Your task to perform on an android device: turn on translation in the chrome app Image 0: 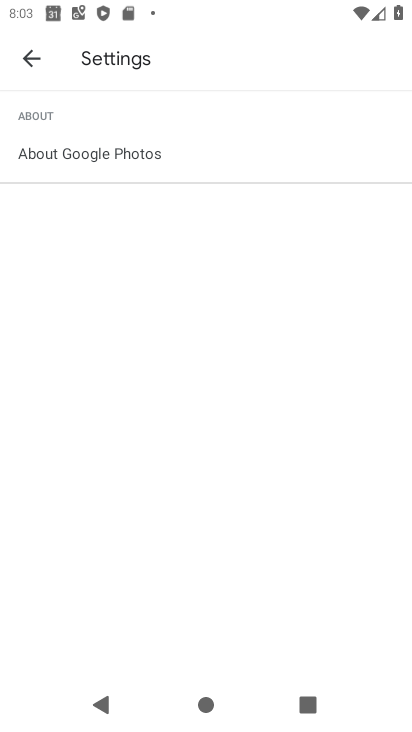
Step 0: press home button
Your task to perform on an android device: turn on translation in the chrome app Image 1: 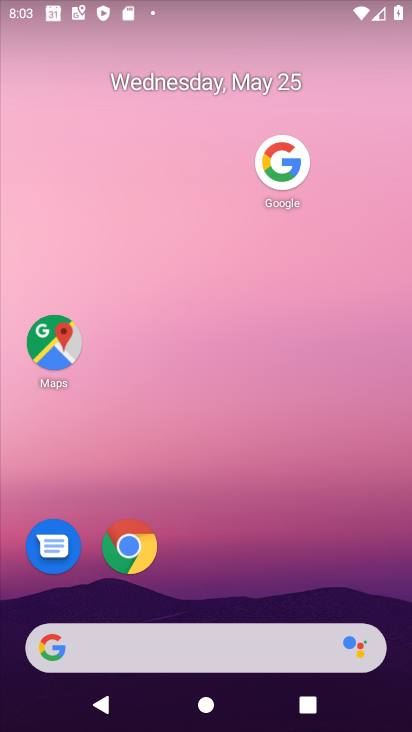
Step 1: click (131, 550)
Your task to perform on an android device: turn on translation in the chrome app Image 2: 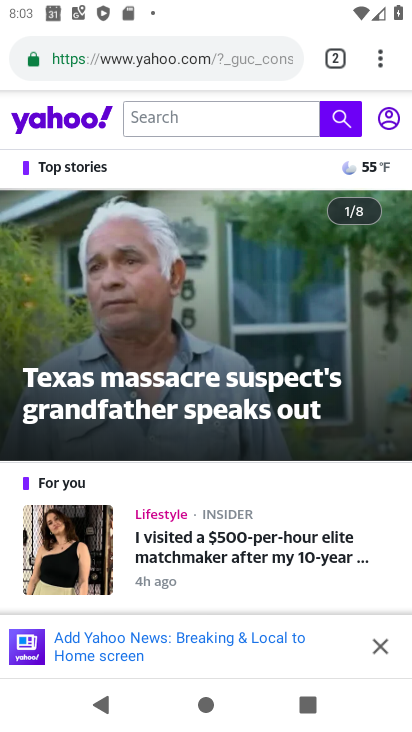
Step 2: drag from (380, 58) to (220, 565)
Your task to perform on an android device: turn on translation in the chrome app Image 3: 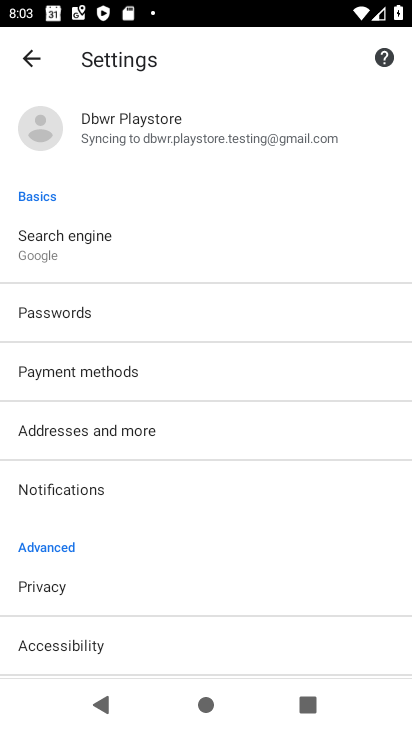
Step 3: drag from (224, 617) to (376, 234)
Your task to perform on an android device: turn on translation in the chrome app Image 4: 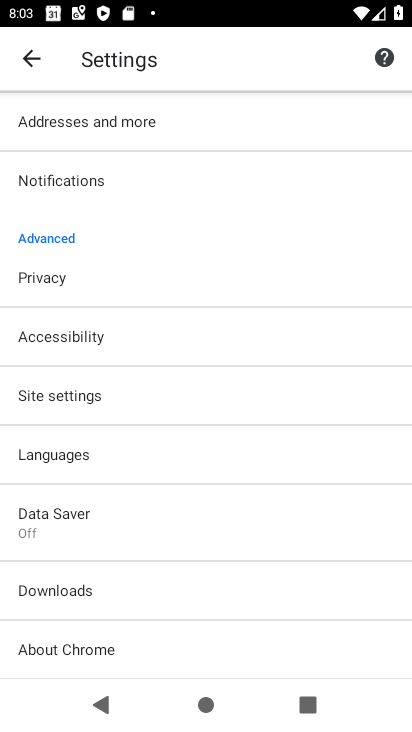
Step 4: click (129, 452)
Your task to perform on an android device: turn on translation in the chrome app Image 5: 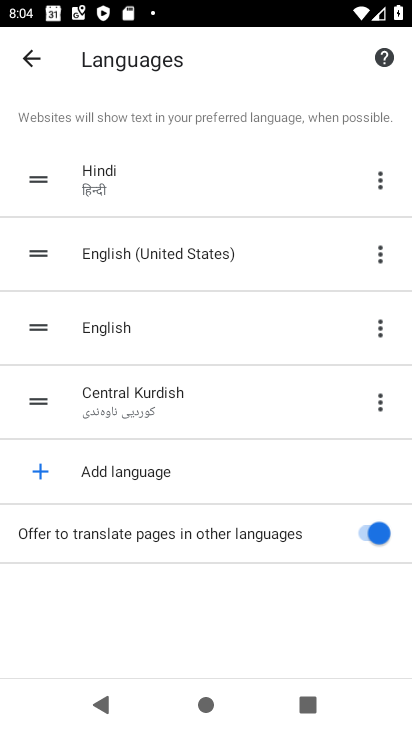
Step 5: task complete